Your task to perform on an android device: Go to sound settings Image 0: 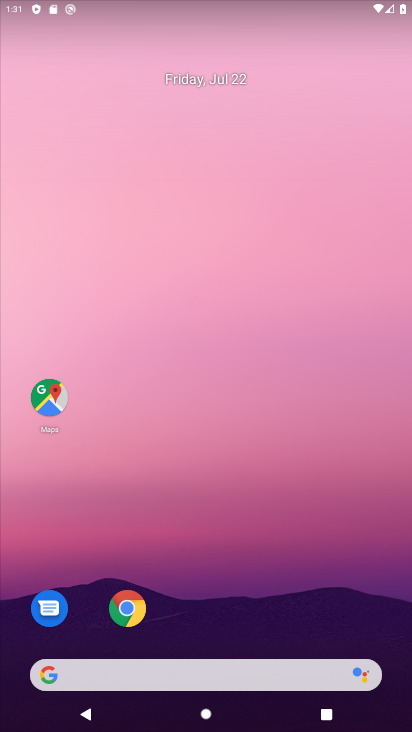
Step 0: drag from (386, 662) to (283, 120)
Your task to perform on an android device: Go to sound settings Image 1: 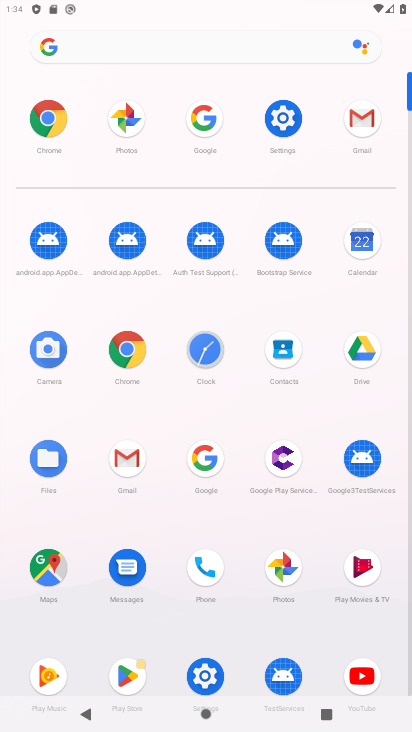
Step 1: click (288, 121)
Your task to perform on an android device: Go to sound settings Image 2: 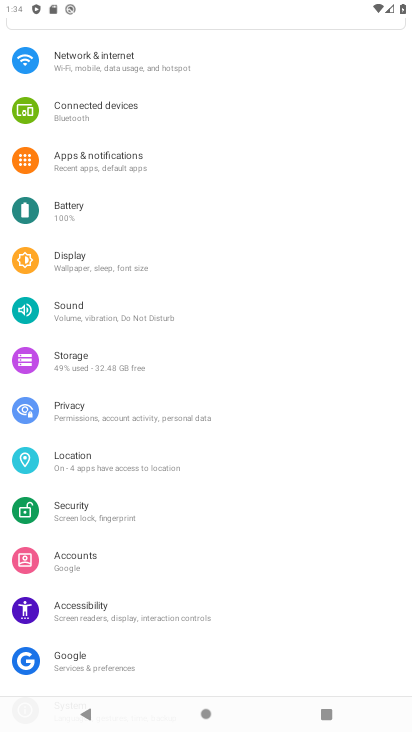
Step 2: click (86, 312)
Your task to perform on an android device: Go to sound settings Image 3: 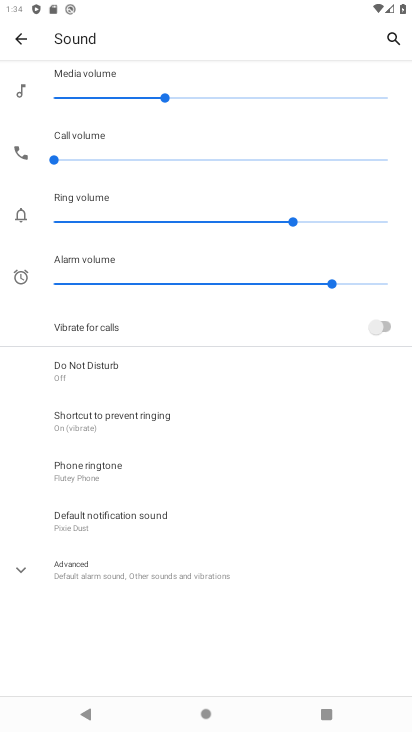
Step 3: click (82, 370)
Your task to perform on an android device: Go to sound settings Image 4: 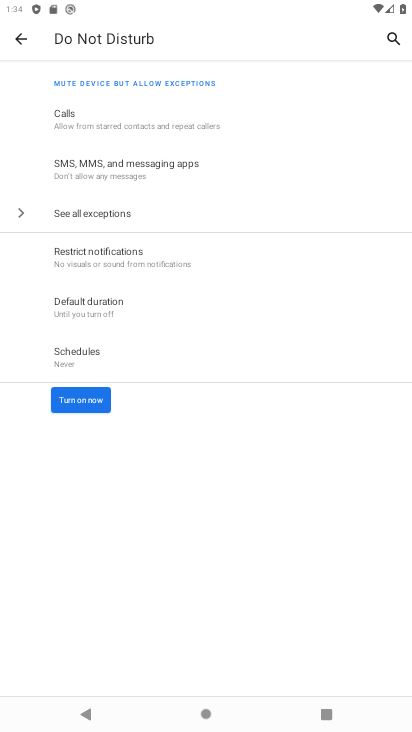
Step 4: click (21, 36)
Your task to perform on an android device: Go to sound settings Image 5: 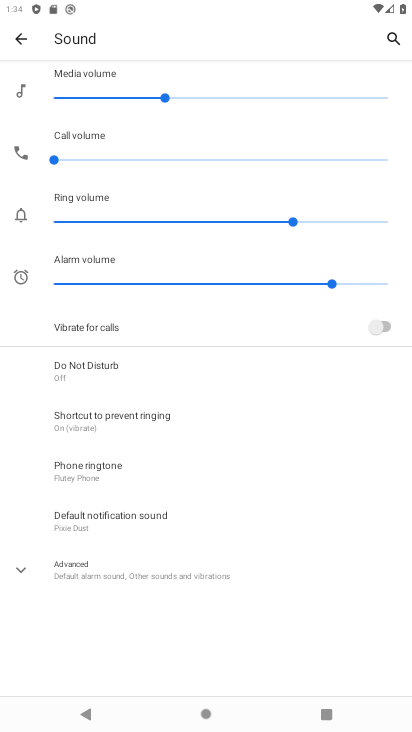
Step 5: click (28, 573)
Your task to perform on an android device: Go to sound settings Image 6: 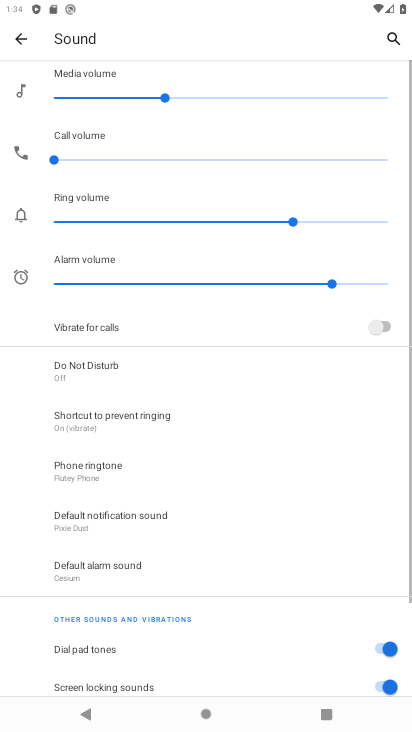
Step 6: task complete